Your task to perform on an android device: change keyboard looks Image 0: 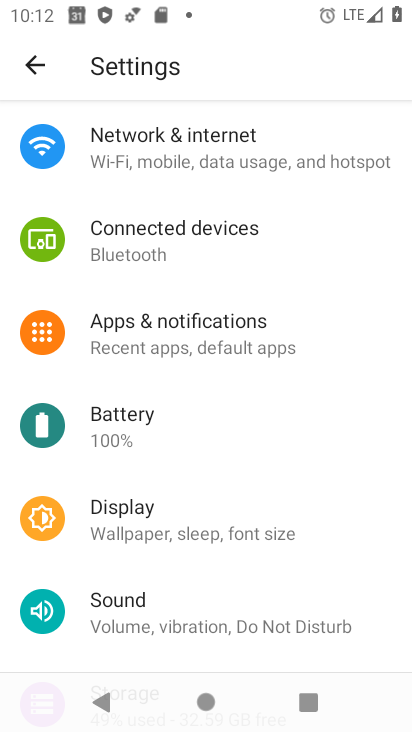
Step 0: drag from (324, 595) to (331, 119)
Your task to perform on an android device: change keyboard looks Image 1: 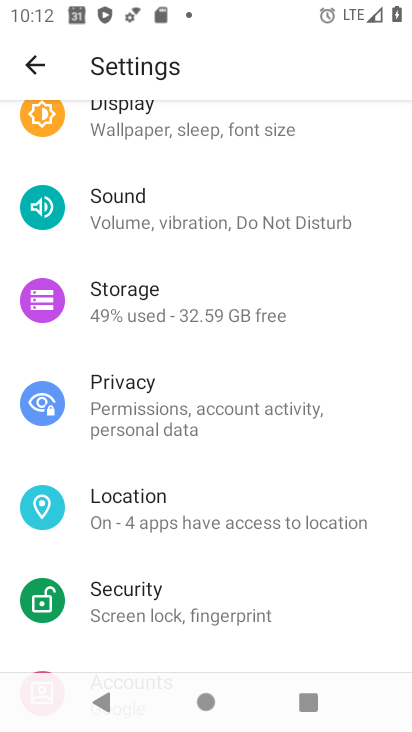
Step 1: drag from (286, 565) to (314, 137)
Your task to perform on an android device: change keyboard looks Image 2: 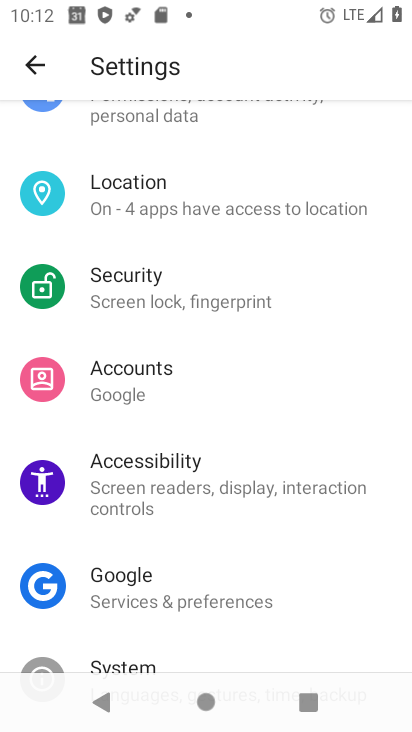
Step 2: drag from (282, 571) to (333, 229)
Your task to perform on an android device: change keyboard looks Image 3: 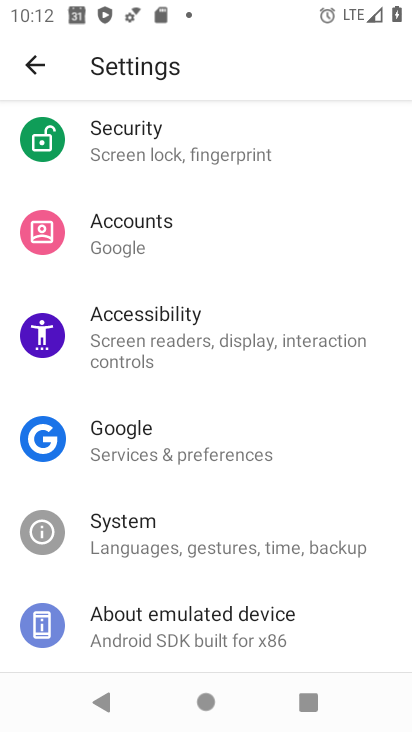
Step 3: click (110, 532)
Your task to perform on an android device: change keyboard looks Image 4: 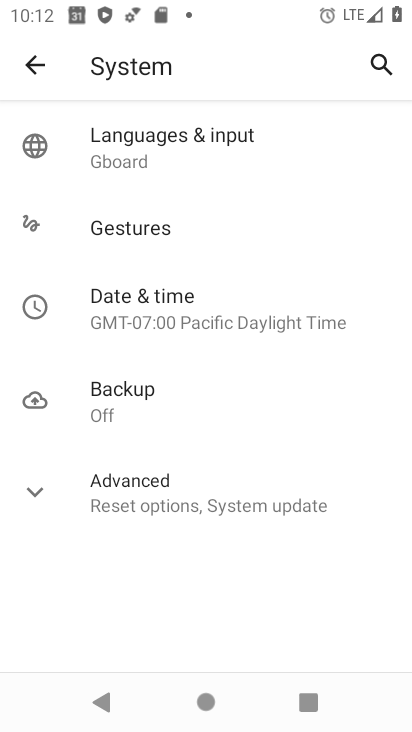
Step 4: click (116, 156)
Your task to perform on an android device: change keyboard looks Image 5: 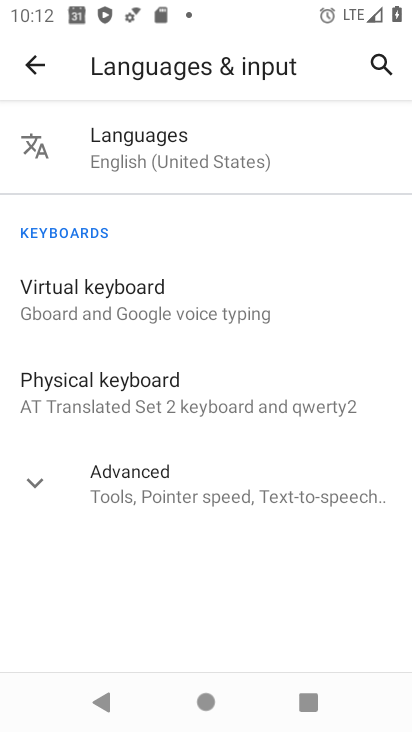
Step 5: click (86, 392)
Your task to perform on an android device: change keyboard looks Image 6: 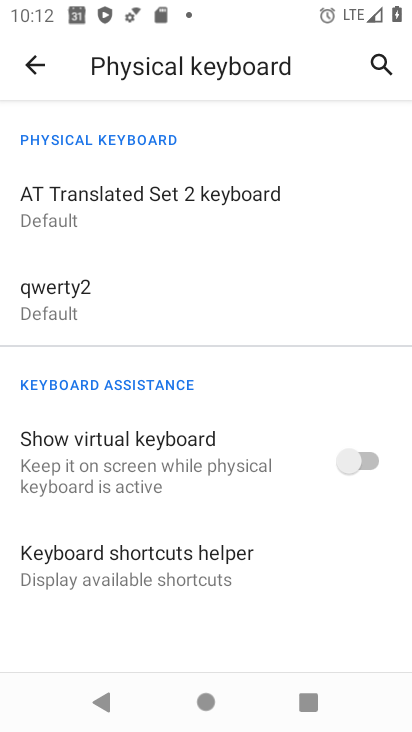
Step 6: click (56, 199)
Your task to perform on an android device: change keyboard looks Image 7: 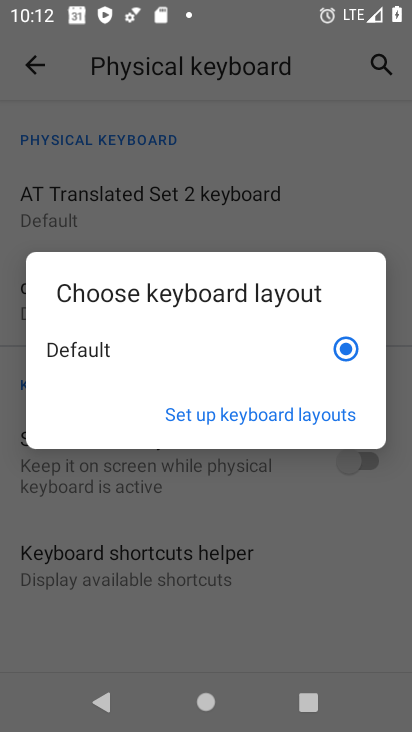
Step 7: click (276, 413)
Your task to perform on an android device: change keyboard looks Image 8: 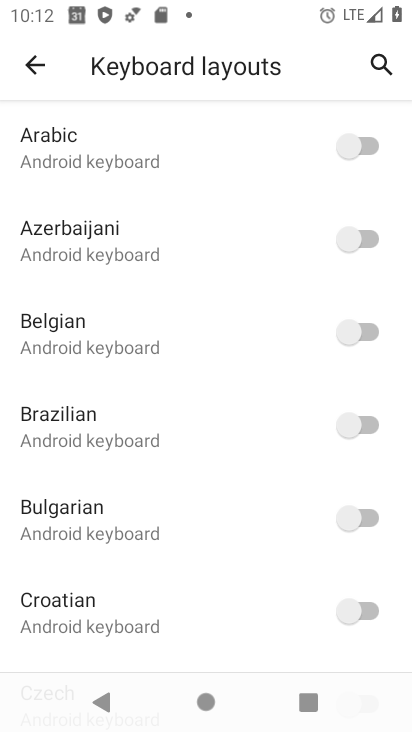
Step 8: drag from (269, 600) to (275, 110)
Your task to perform on an android device: change keyboard looks Image 9: 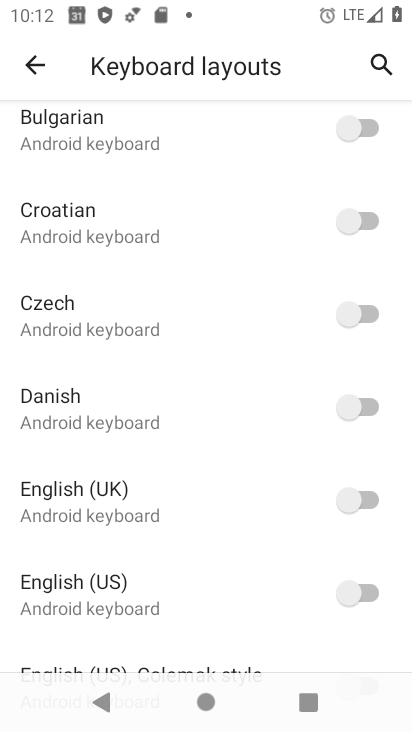
Step 9: click (366, 496)
Your task to perform on an android device: change keyboard looks Image 10: 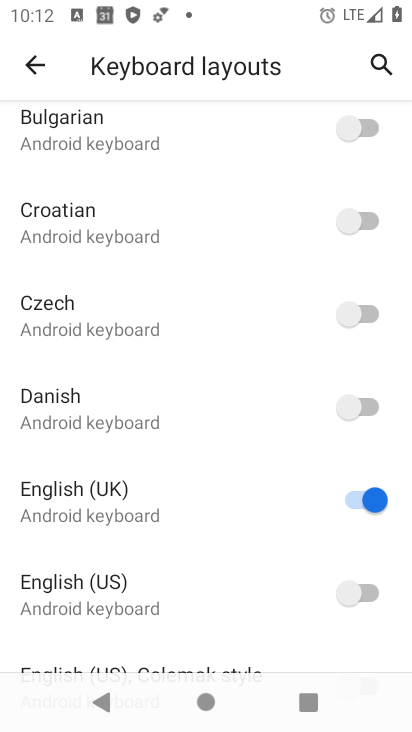
Step 10: task complete